Your task to perform on an android device: Go to settings Image 0: 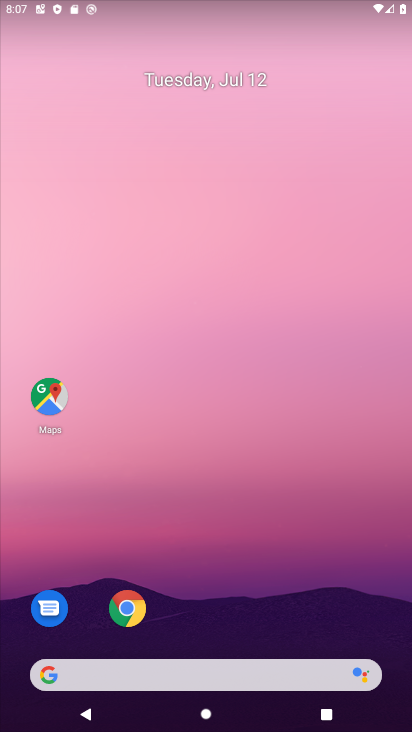
Step 0: drag from (141, 10) to (197, 583)
Your task to perform on an android device: Go to settings Image 1: 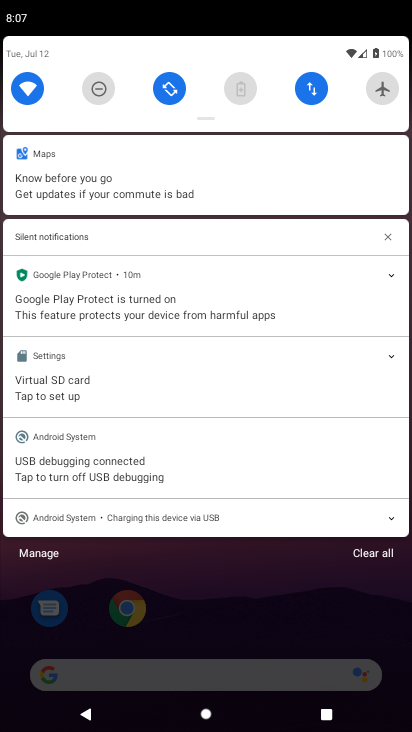
Step 1: drag from (214, 52) to (255, 491)
Your task to perform on an android device: Go to settings Image 2: 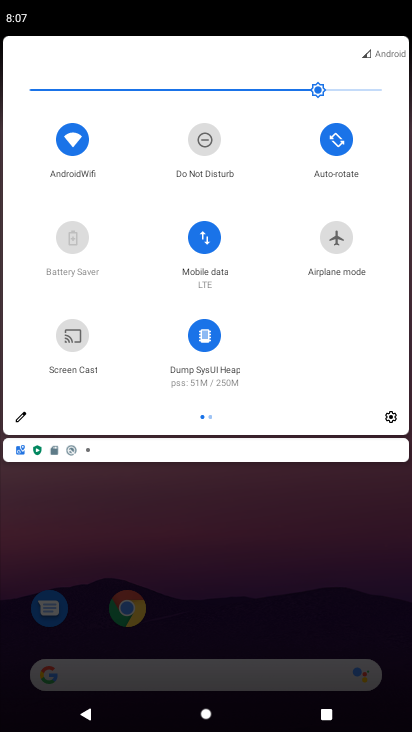
Step 2: click (393, 426)
Your task to perform on an android device: Go to settings Image 3: 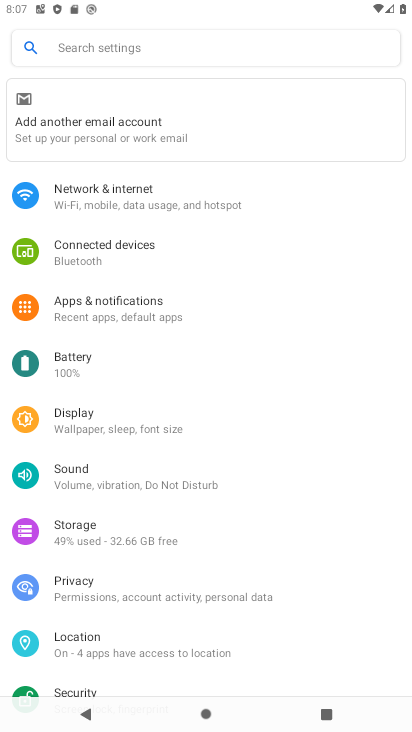
Step 3: task complete